Your task to perform on an android device: Empty the shopping cart on target. Add bose soundsport free to the cart on target, then select checkout. Image 0: 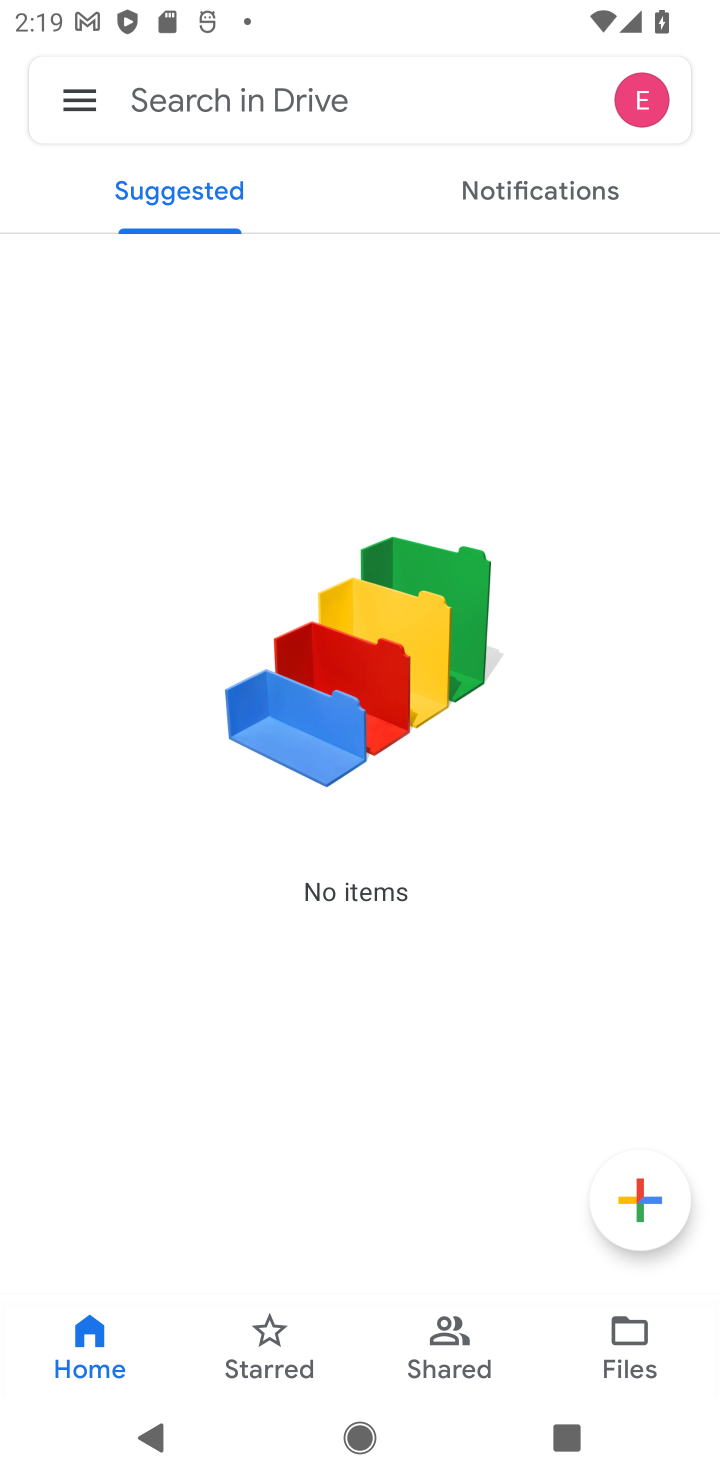
Step 0: press home button
Your task to perform on an android device: Empty the shopping cart on target. Add bose soundsport free to the cart on target, then select checkout. Image 1: 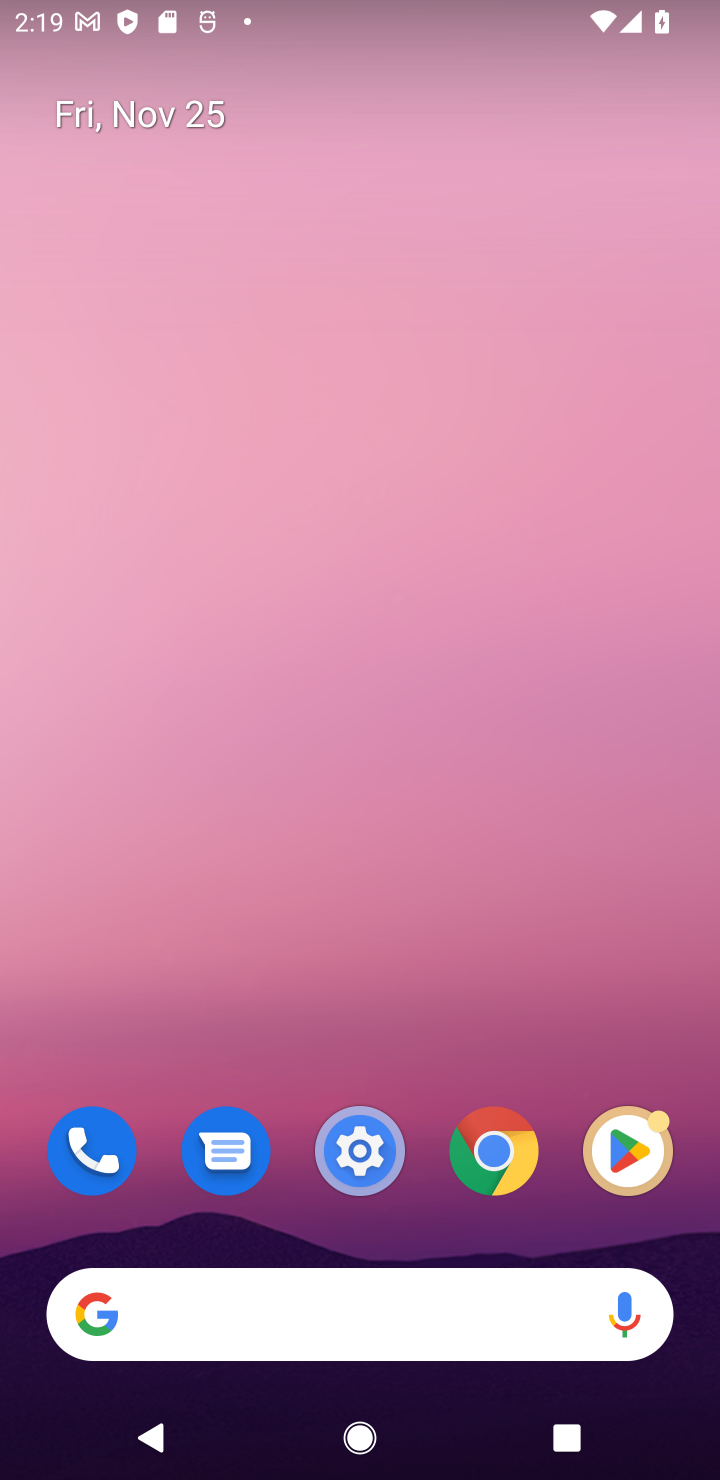
Step 1: click (240, 1289)
Your task to perform on an android device: Empty the shopping cart on target. Add bose soundsport free to the cart on target, then select checkout. Image 2: 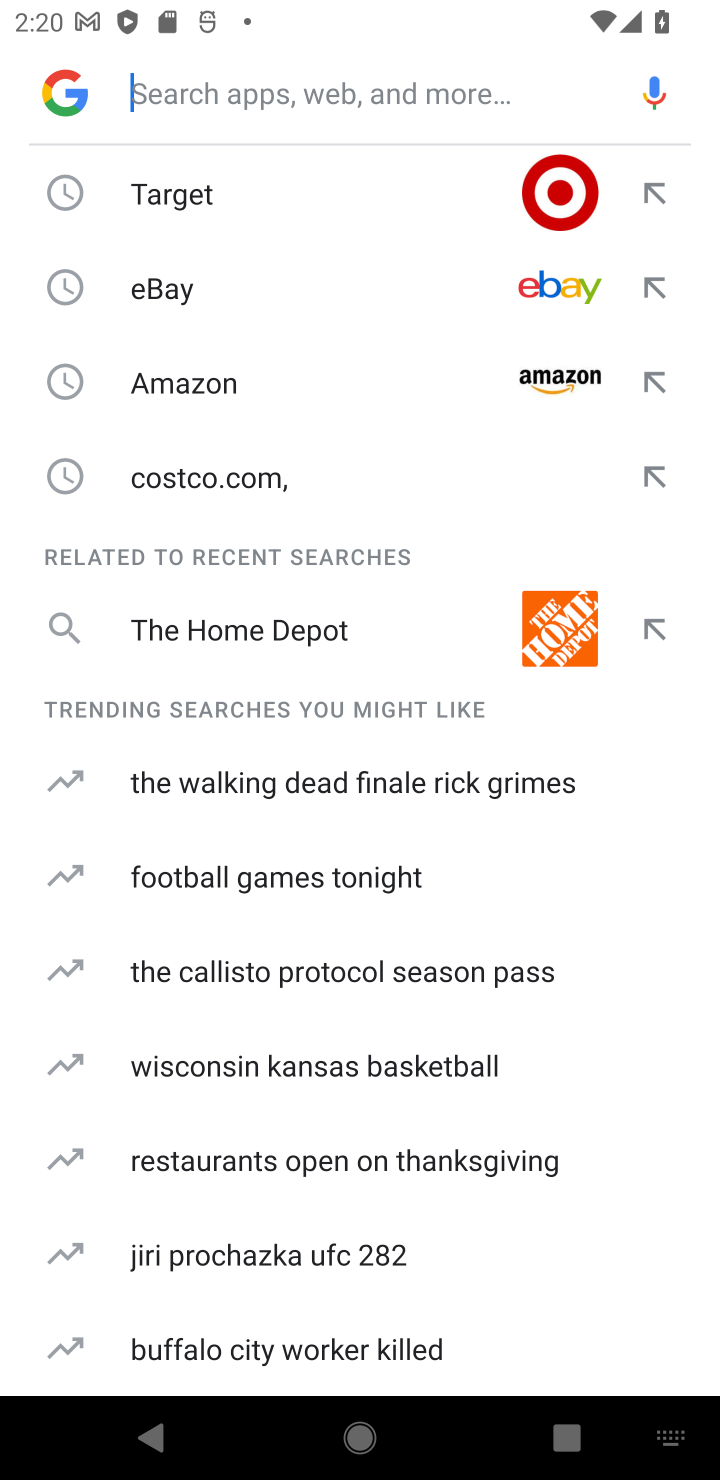
Step 2: type "target"
Your task to perform on an android device: Empty the shopping cart on target. Add bose soundsport free to the cart on target, then select checkout. Image 3: 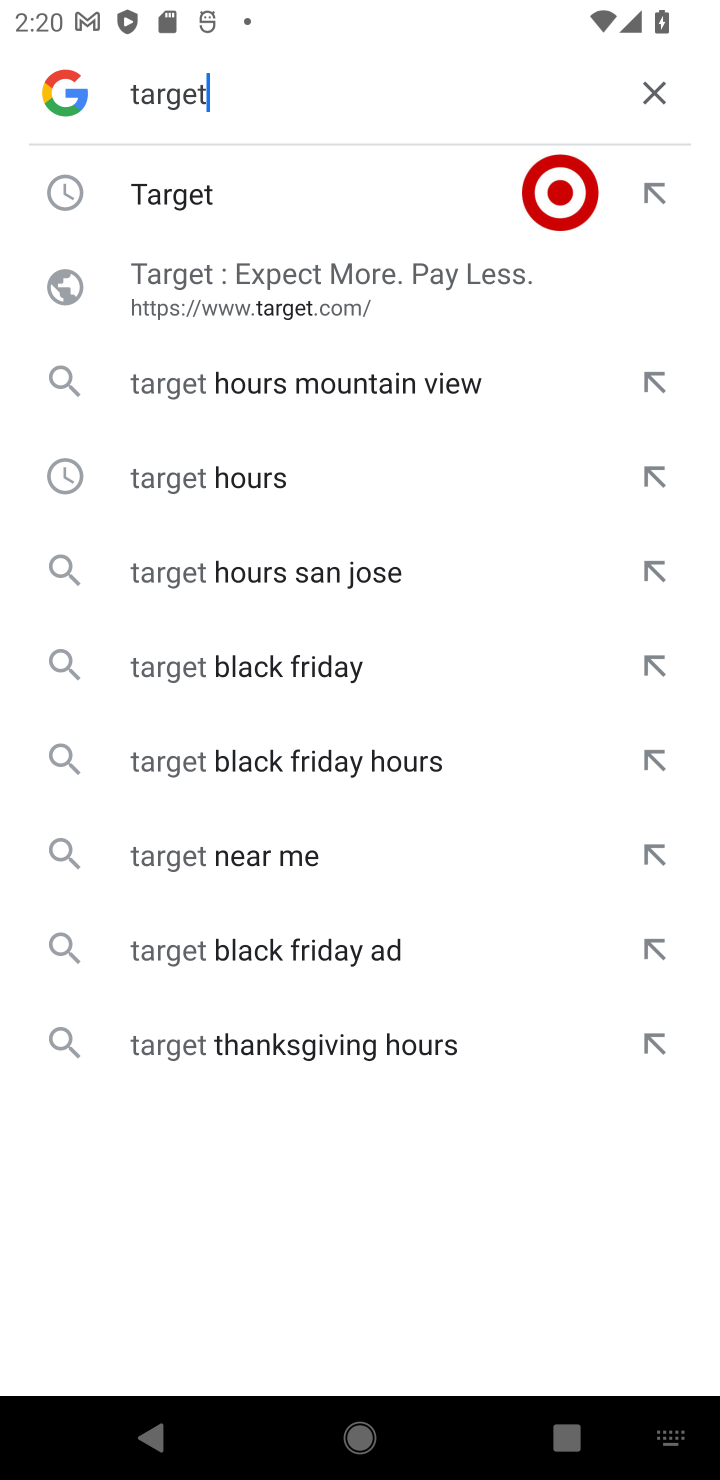
Step 3: click (267, 222)
Your task to perform on an android device: Empty the shopping cart on target. Add bose soundsport free to the cart on target, then select checkout. Image 4: 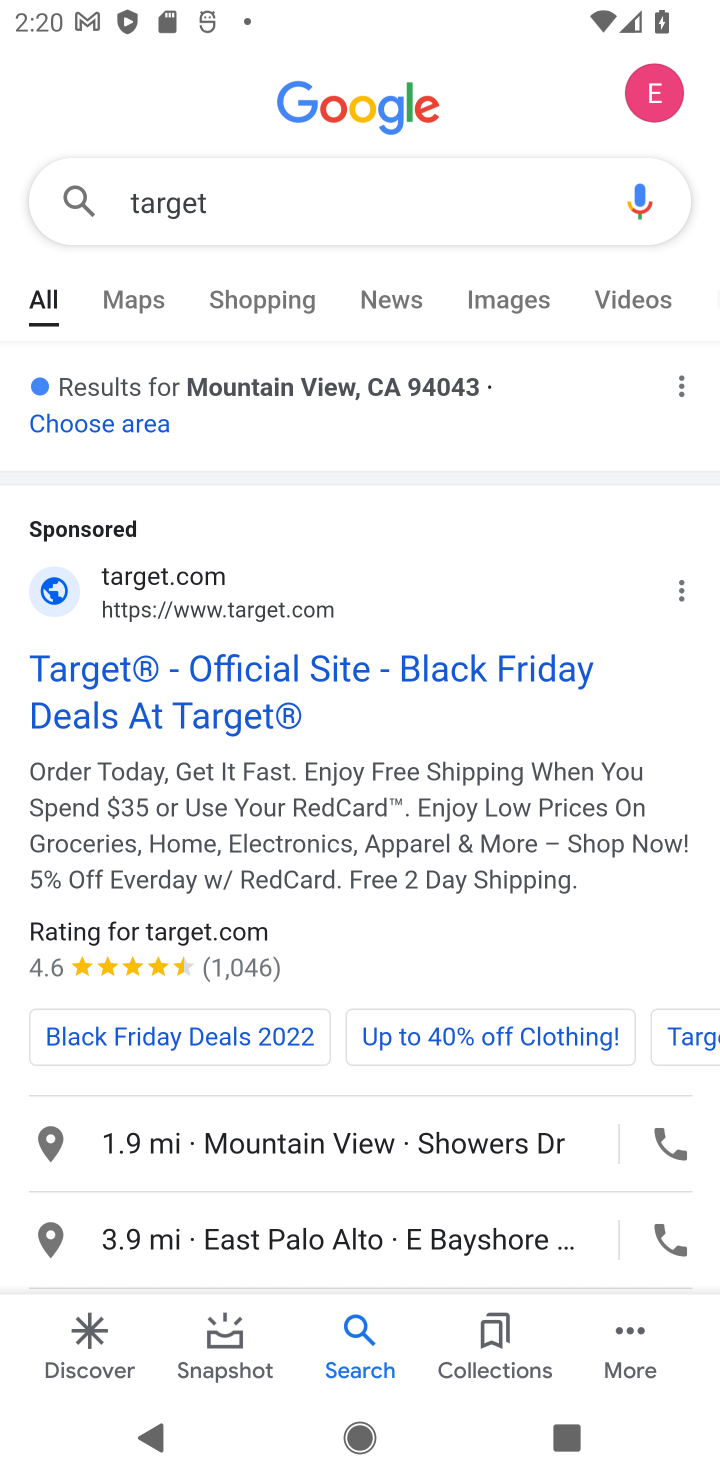
Step 4: click (152, 684)
Your task to perform on an android device: Empty the shopping cart on target. Add bose soundsport free to the cart on target, then select checkout. Image 5: 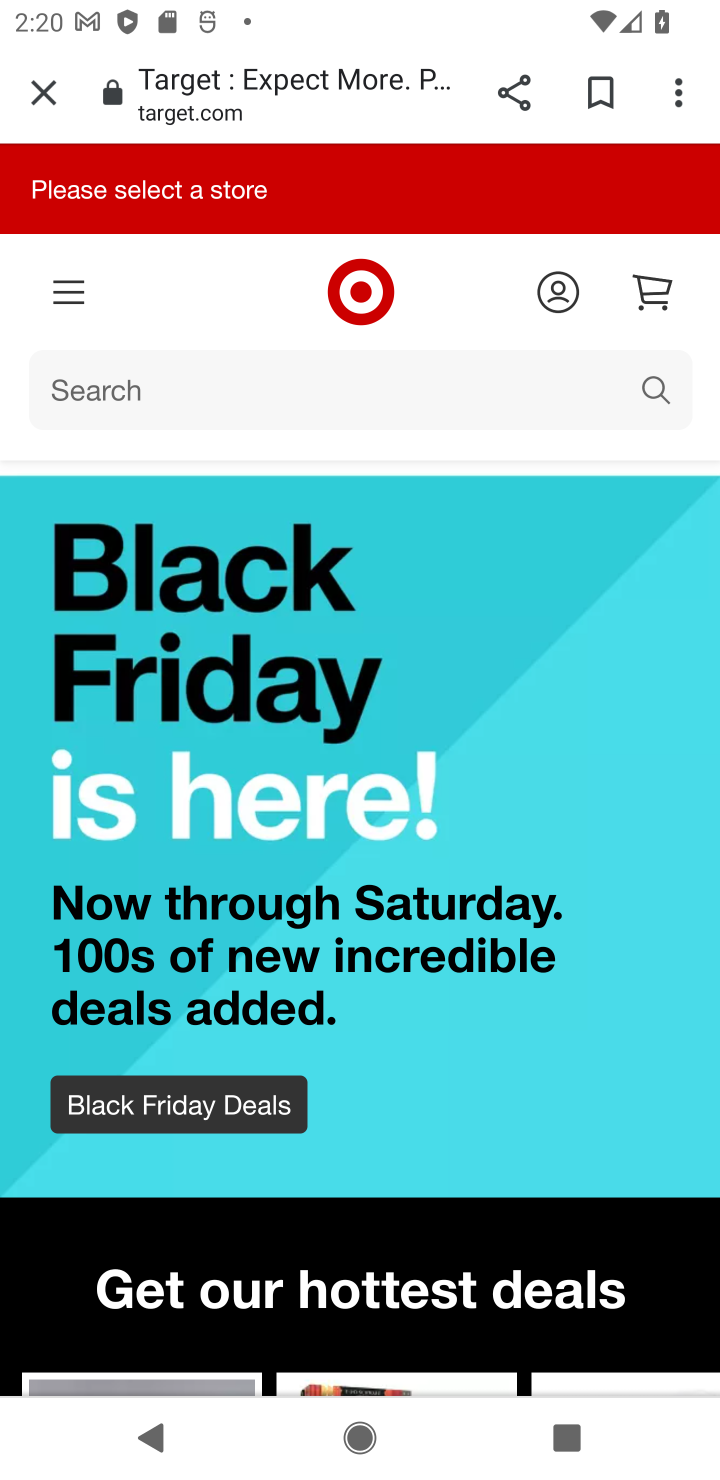
Step 5: task complete